Your task to perform on an android device: allow cookies in the chrome app Image 0: 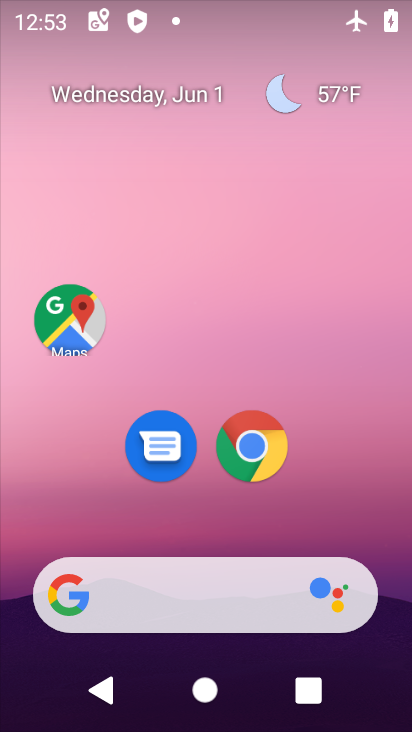
Step 0: drag from (227, 541) to (237, 201)
Your task to perform on an android device: allow cookies in the chrome app Image 1: 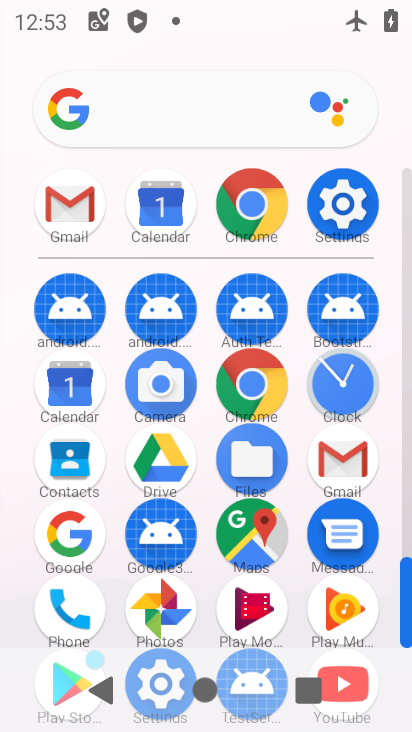
Step 1: drag from (209, 272) to (198, 165)
Your task to perform on an android device: allow cookies in the chrome app Image 2: 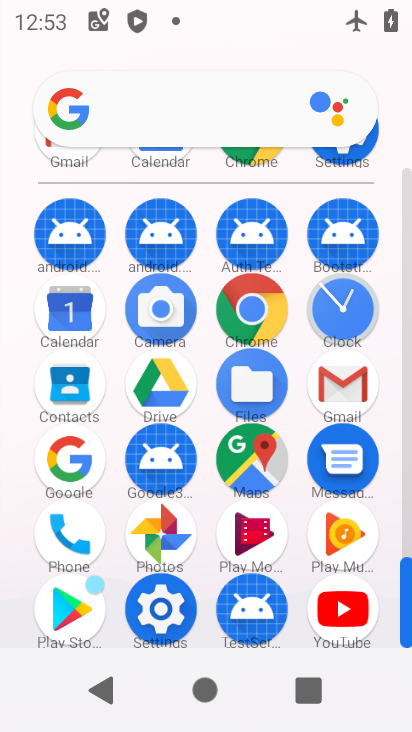
Step 2: click (243, 324)
Your task to perform on an android device: allow cookies in the chrome app Image 3: 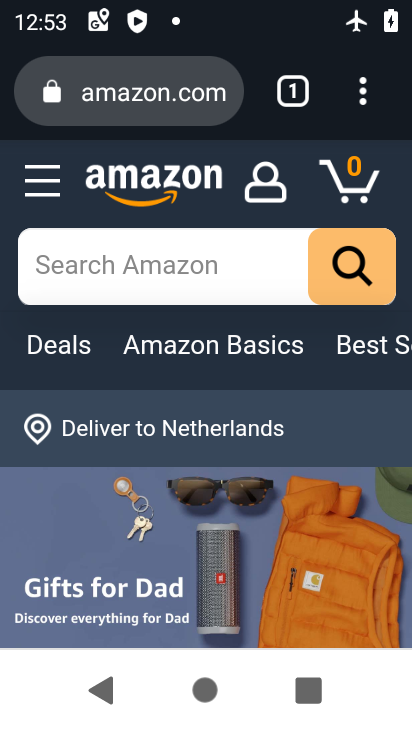
Step 3: click (365, 97)
Your task to perform on an android device: allow cookies in the chrome app Image 4: 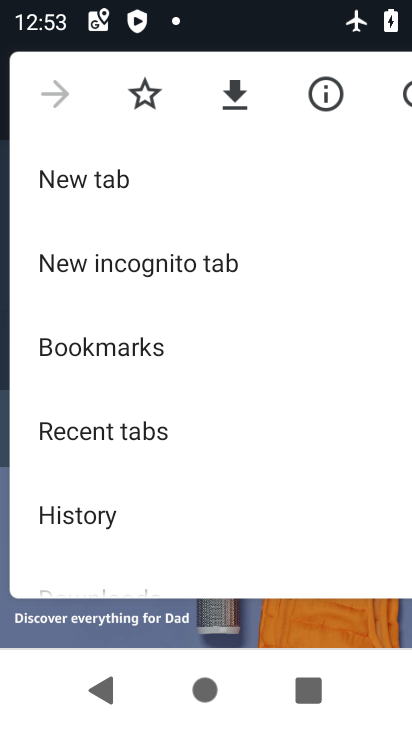
Step 4: drag from (191, 495) to (183, 221)
Your task to perform on an android device: allow cookies in the chrome app Image 5: 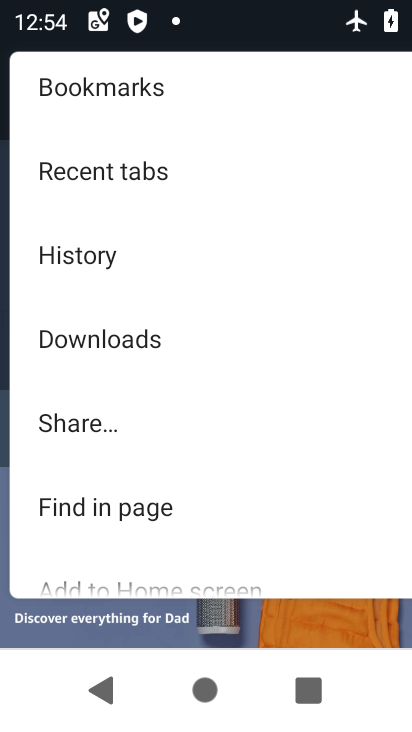
Step 5: drag from (157, 467) to (183, 232)
Your task to perform on an android device: allow cookies in the chrome app Image 6: 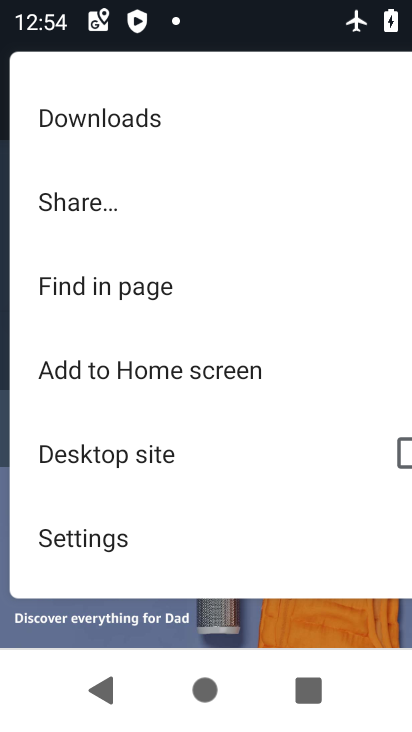
Step 6: click (133, 546)
Your task to perform on an android device: allow cookies in the chrome app Image 7: 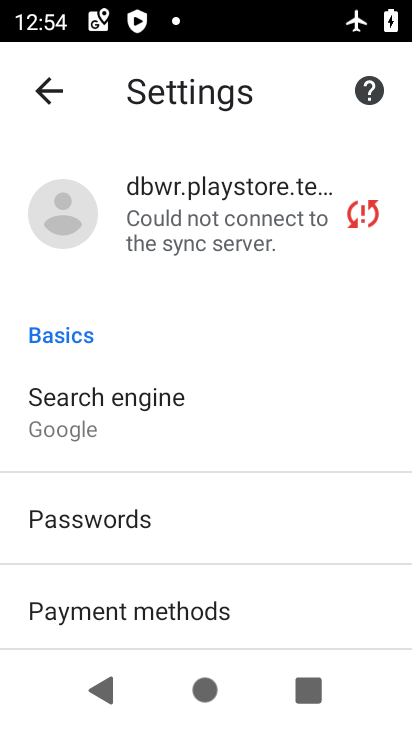
Step 7: drag from (154, 562) to (135, 211)
Your task to perform on an android device: allow cookies in the chrome app Image 8: 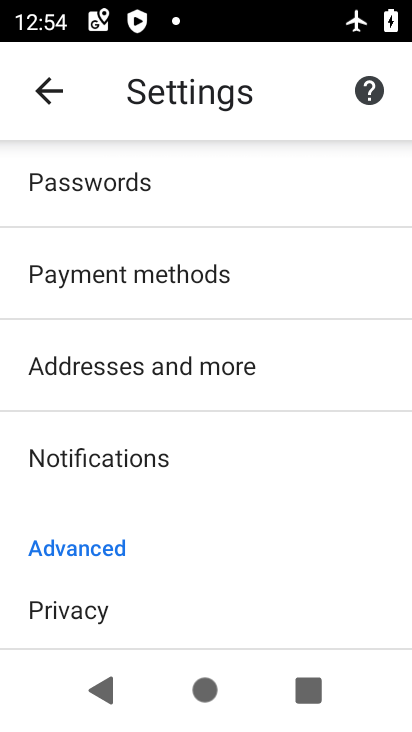
Step 8: drag from (199, 535) to (190, 360)
Your task to perform on an android device: allow cookies in the chrome app Image 9: 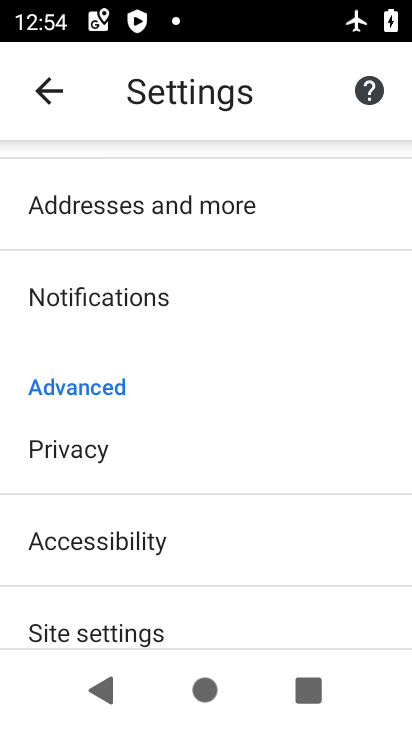
Step 9: drag from (222, 560) to (198, 347)
Your task to perform on an android device: allow cookies in the chrome app Image 10: 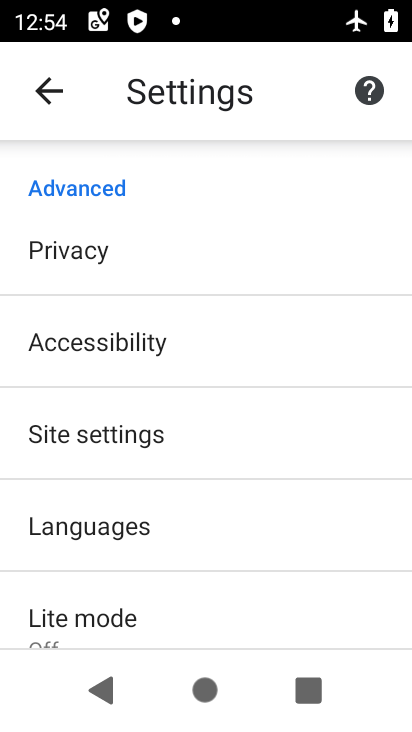
Step 10: click (181, 438)
Your task to perform on an android device: allow cookies in the chrome app Image 11: 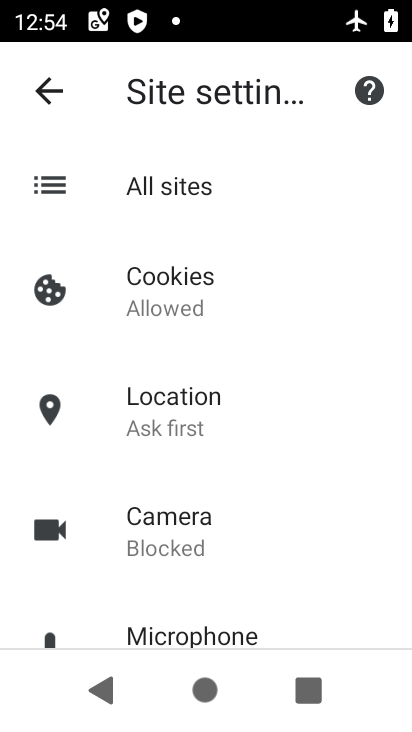
Step 11: task complete